Your task to perform on an android device: find snoozed emails in the gmail app Image 0: 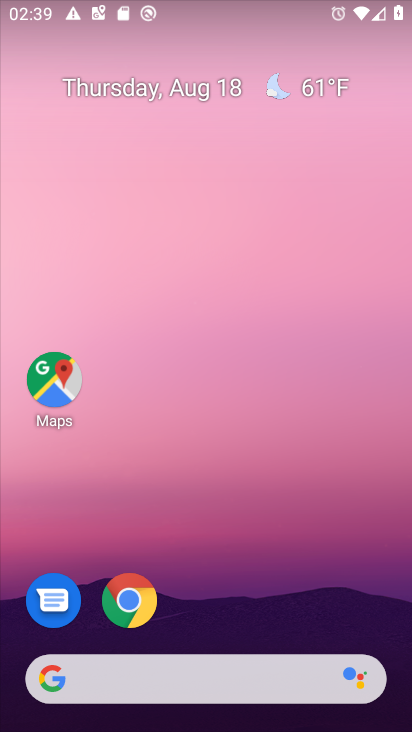
Step 0: press home button
Your task to perform on an android device: find snoozed emails in the gmail app Image 1: 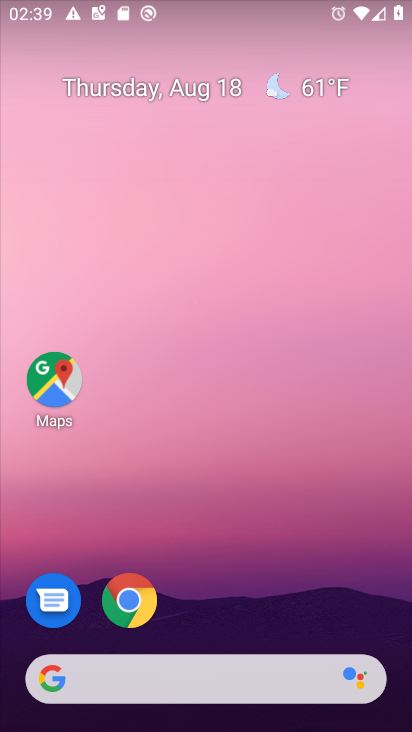
Step 1: drag from (260, 579) to (259, 99)
Your task to perform on an android device: find snoozed emails in the gmail app Image 2: 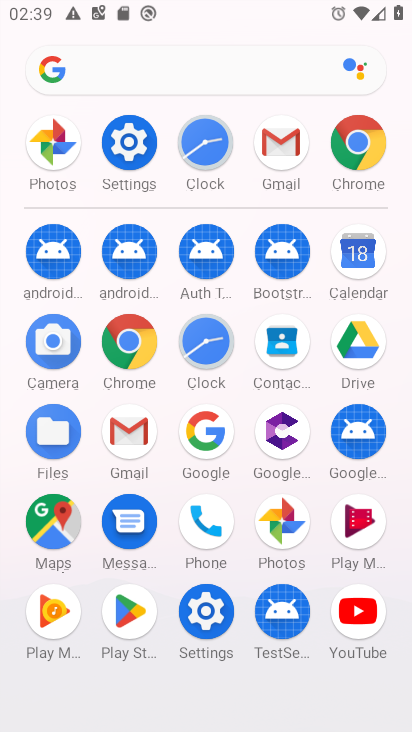
Step 2: click (275, 148)
Your task to perform on an android device: find snoozed emails in the gmail app Image 3: 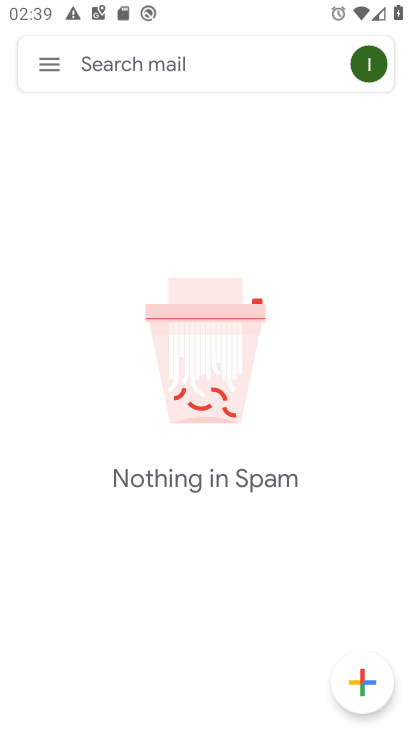
Step 3: click (45, 65)
Your task to perform on an android device: find snoozed emails in the gmail app Image 4: 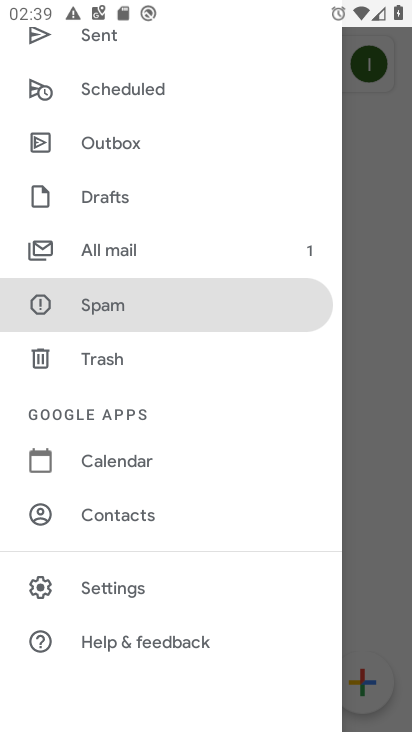
Step 4: drag from (141, 115) to (108, 343)
Your task to perform on an android device: find snoozed emails in the gmail app Image 5: 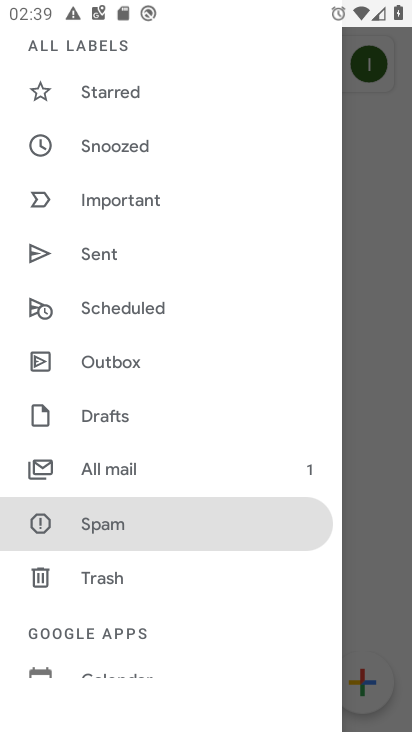
Step 5: click (102, 148)
Your task to perform on an android device: find snoozed emails in the gmail app Image 6: 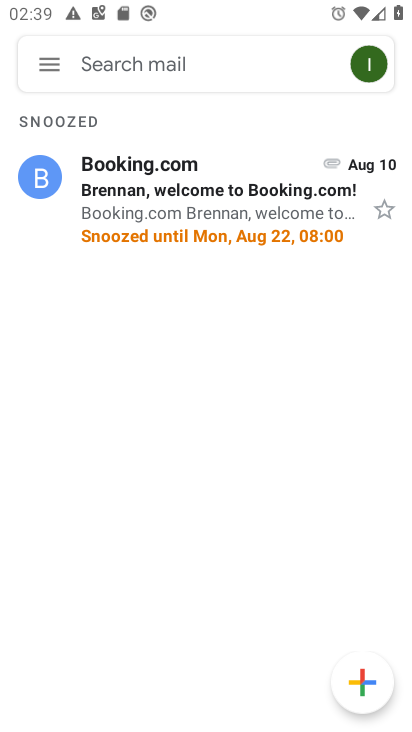
Step 6: task complete